Your task to perform on an android device: change your default location settings in chrome Image 0: 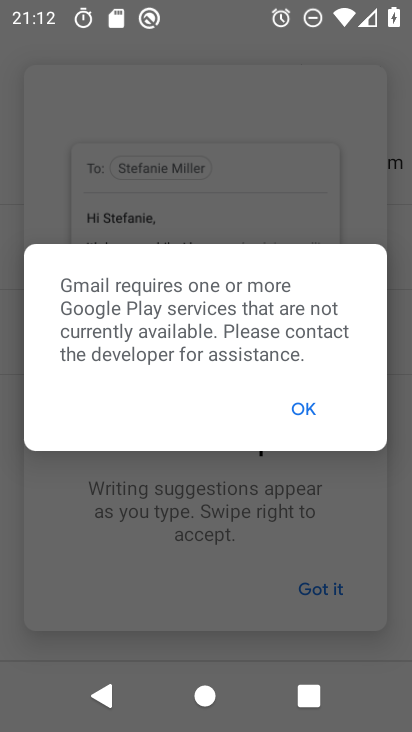
Step 0: press home button
Your task to perform on an android device: change your default location settings in chrome Image 1: 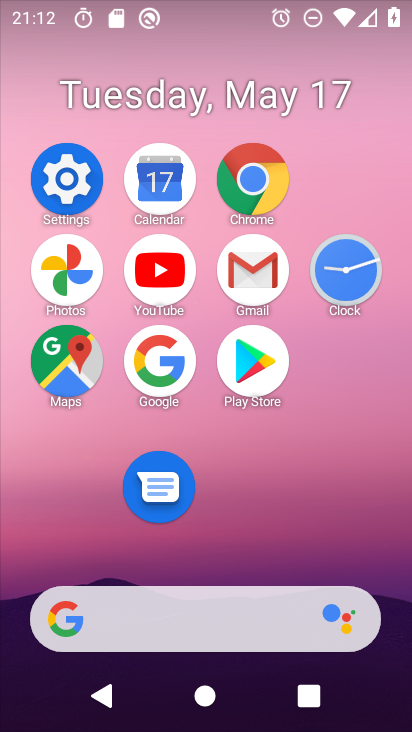
Step 1: click (254, 185)
Your task to perform on an android device: change your default location settings in chrome Image 2: 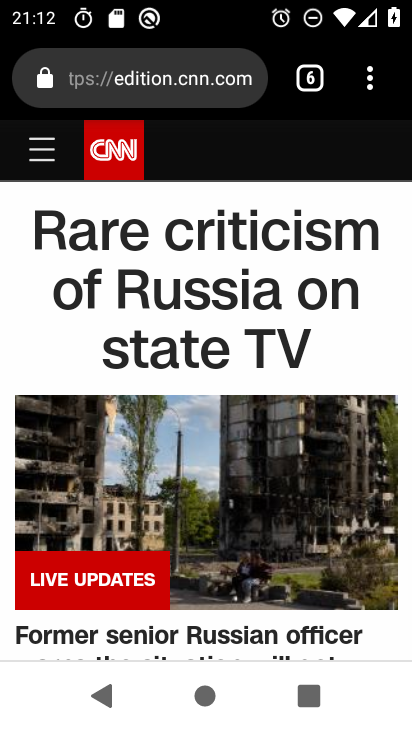
Step 2: click (368, 62)
Your task to perform on an android device: change your default location settings in chrome Image 3: 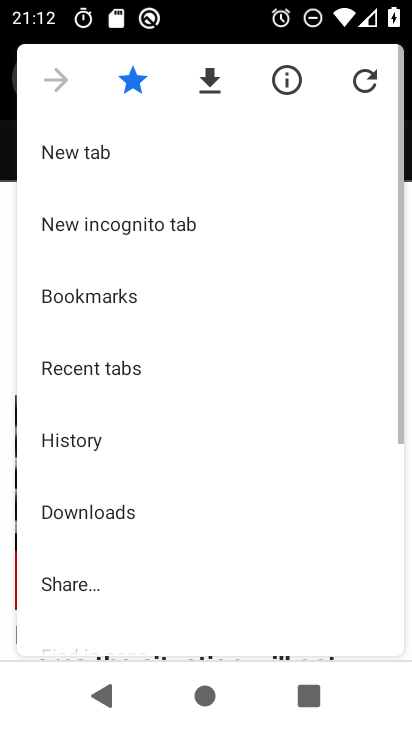
Step 3: drag from (174, 503) to (200, 104)
Your task to perform on an android device: change your default location settings in chrome Image 4: 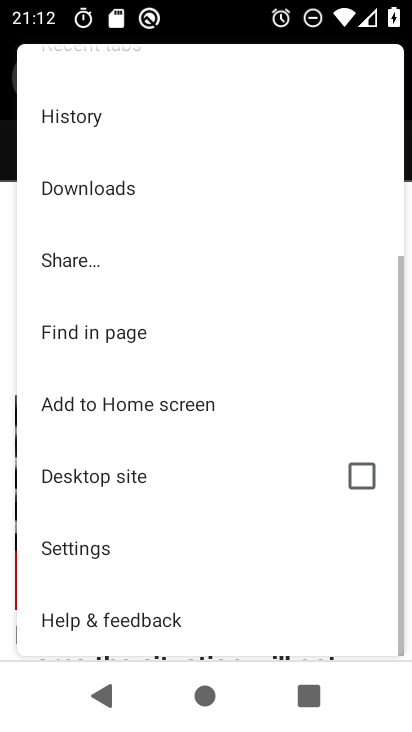
Step 4: click (120, 545)
Your task to perform on an android device: change your default location settings in chrome Image 5: 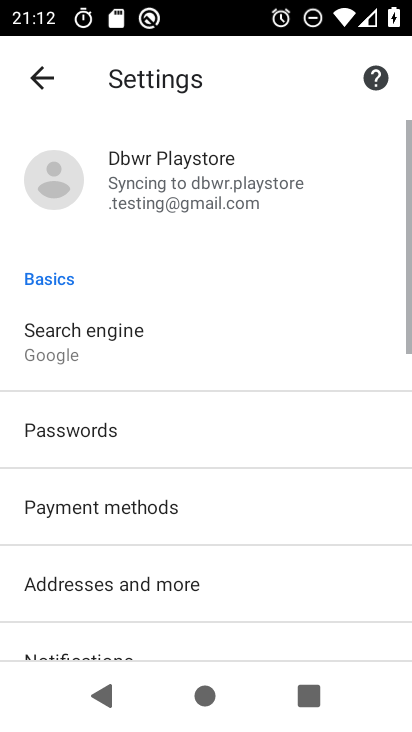
Step 5: drag from (114, 536) to (154, 165)
Your task to perform on an android device: change your default location settings in chrome Image 6: 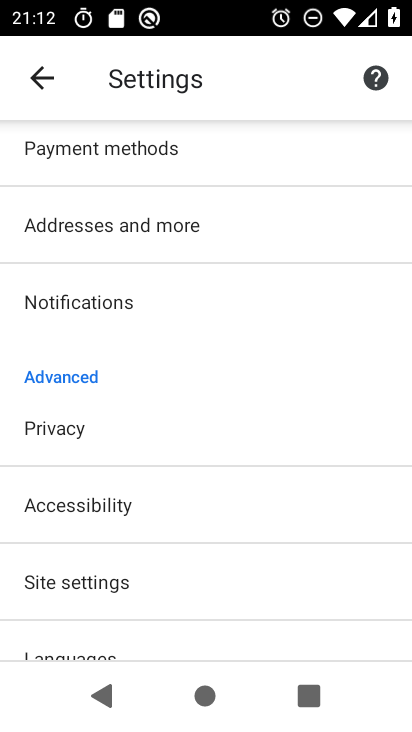
Step 6: click (125, 560)
Your task to perform on an android device: change your default location settings in chrome Image 7: 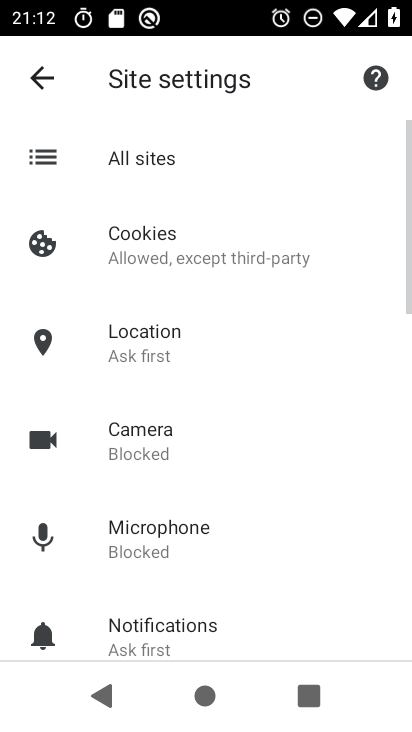
Step 7: click (175, 323)
Your task to perform on an android device: change your default location settings in chrome Image 8: 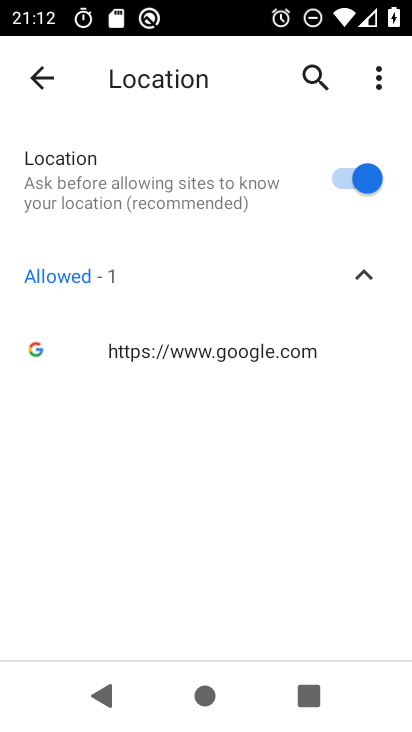
Step 8: click (355, 159)
Your task to perform on an android device: change your default location settings in chrome Image 9: 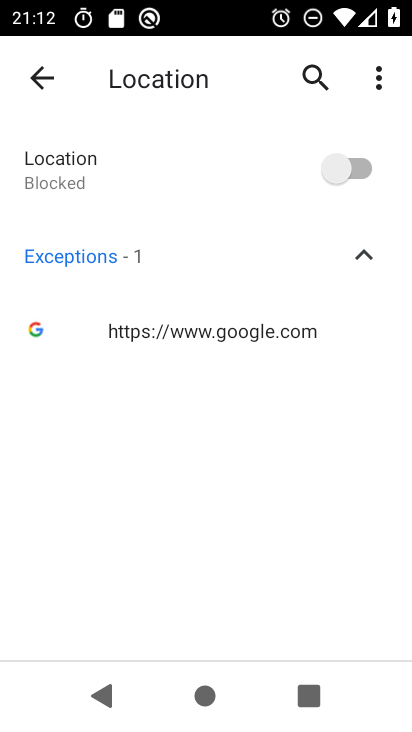
Step 9: task complete